Your task to perform on an android device: Open Maps and search for coffee Image 0: 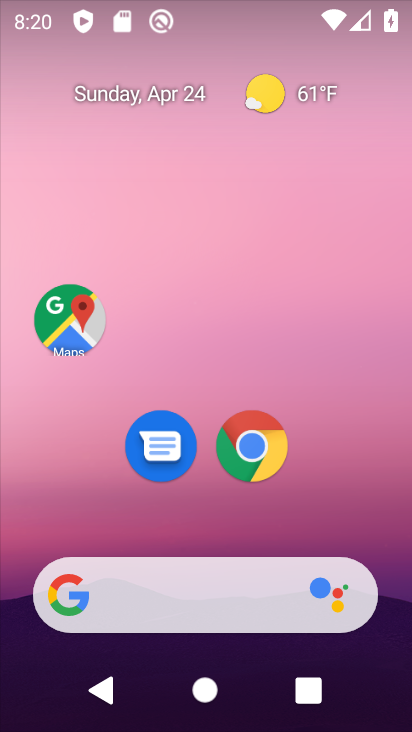
Step 0: drag from (211, 597) to (204, 358)
Your task to perform on an android device: Open Maps and search for coffee Image 1: 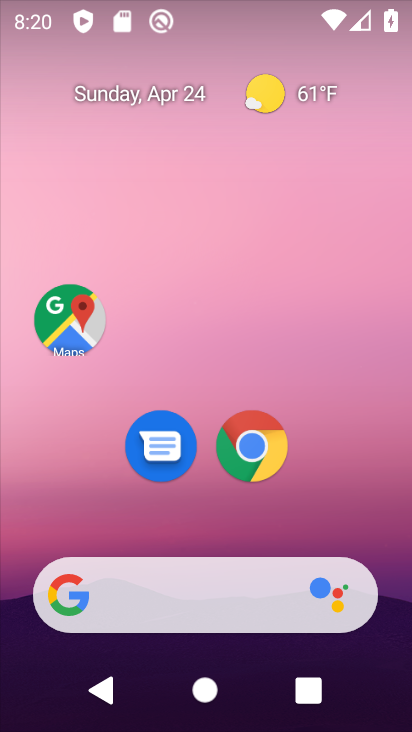
Step 1: click (86, 336)
Your task to perform on an android device: Open Maps and search for coffee Image 2: 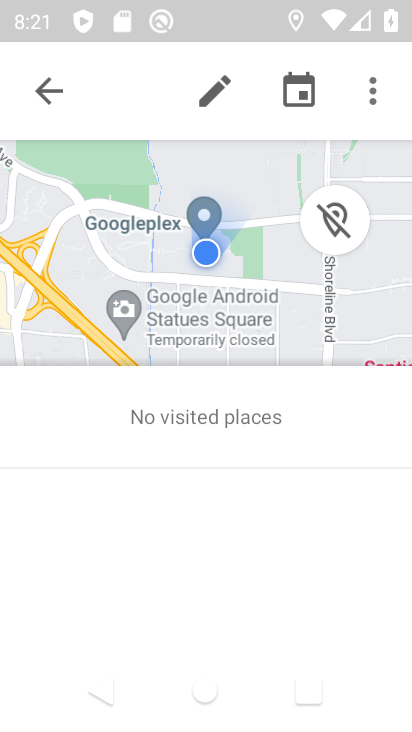
Step 2: click (48, 89)
Your task to perform on an android device: Open Maps and search for coffee Image 3: 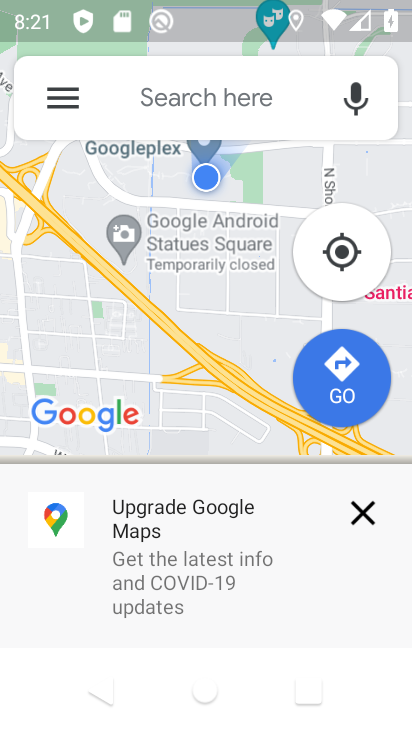
Step 3: click (219, 107)
Your task to perform on an android device: Open Maps and search for coffee Image 4: 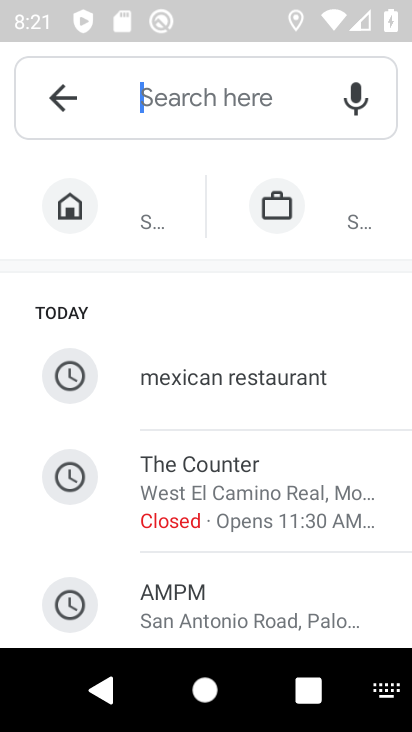
Step 4: type "coffee"
Your task to perform on an android device: Open Maps and search for coffee Image 5: 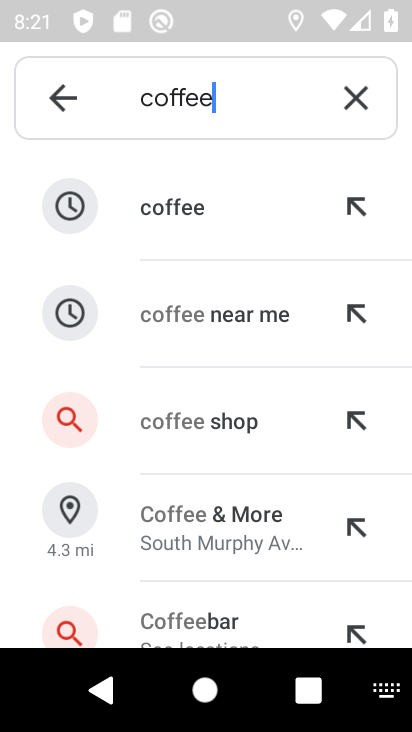
Step 5: click (171, 224)
Your task to perform on an android device: Open Maps and search for coffee Image 6: 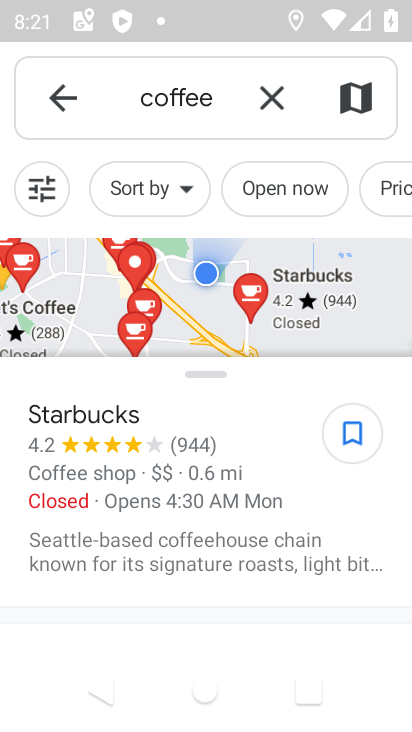
Step 6: task complete